Your task to perform on an android device: change the clock display to analog Image 0: 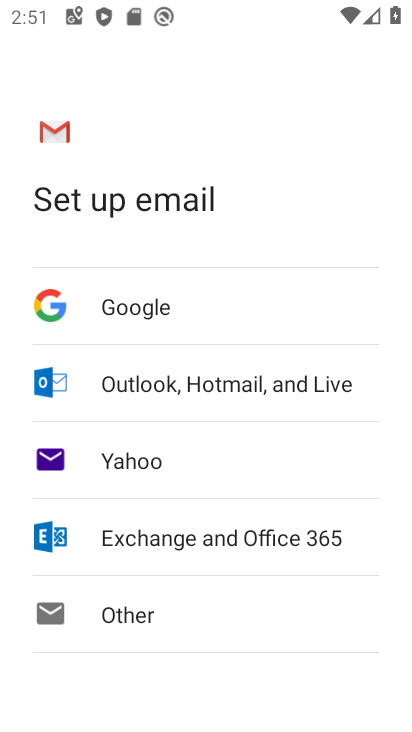
Step 0: press home button
Your task to perform on an android device: change the clock display to analog Image 1: 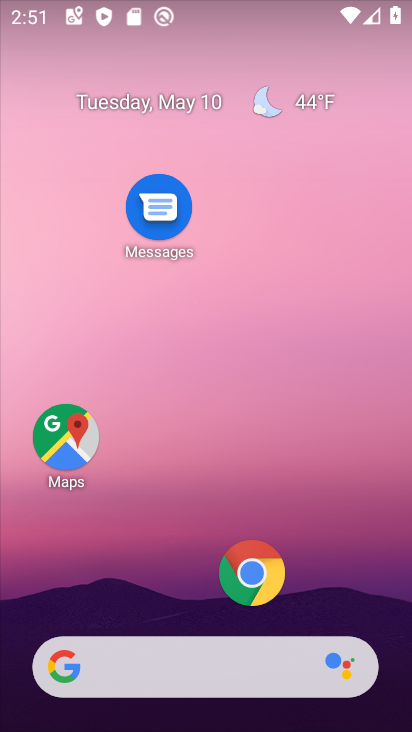
Step 1: drag from (177, 609) to (209, 240)
Your task to perform on an android device: change the clock display to analog Image 2: 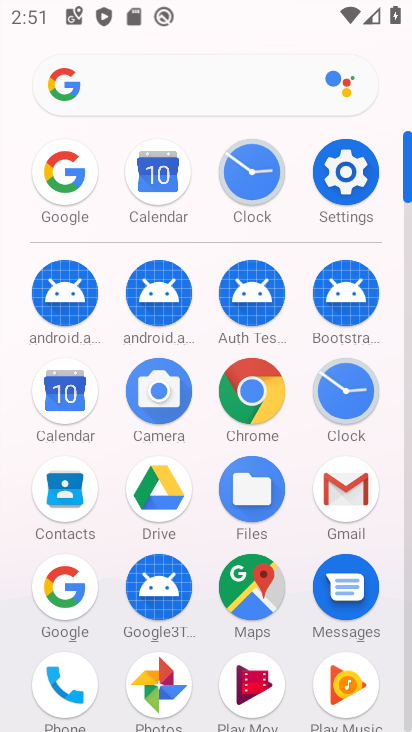
Step 2: click (254, 185)
Your task to perform on an android device: change the clock display to analog Image 3: 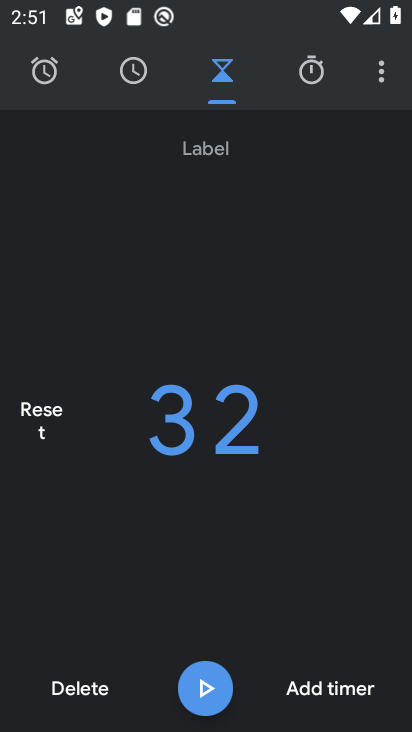
Step 3: click (372, 68)
Your task to perform on an android device: change the clock display to analog Image 4: 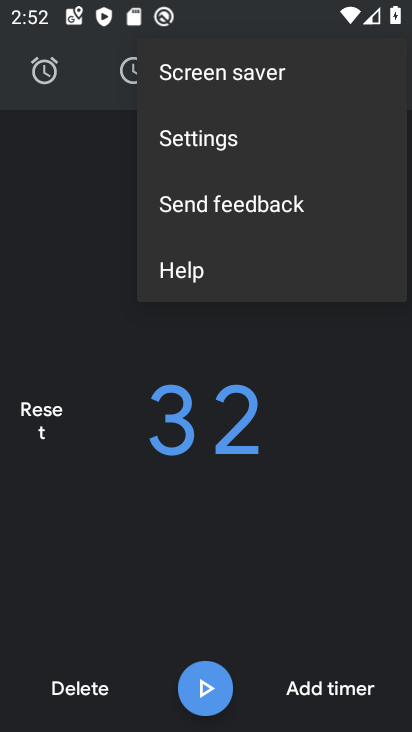
Step 4: click (237, 135)
Your task to perform on an android device: change the clock display to analog Image 5: 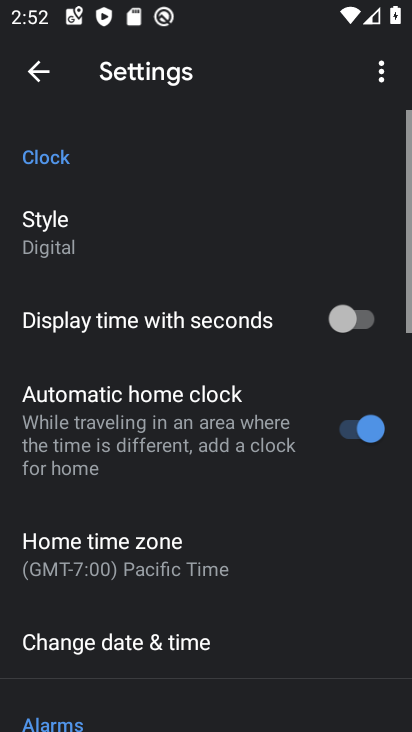
Step 5: click (58, 234)
Your task to perform on an android device: change the clock display to analog Image 6: 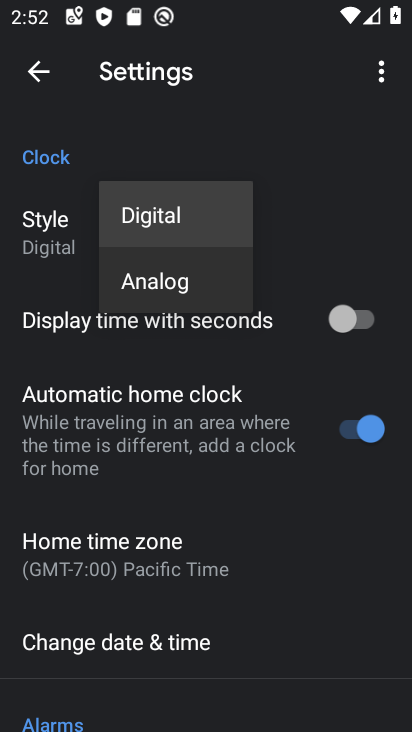
Step 6: click (165, 268)
Your task to perform on an android device: change the clock display to analog Image 7: 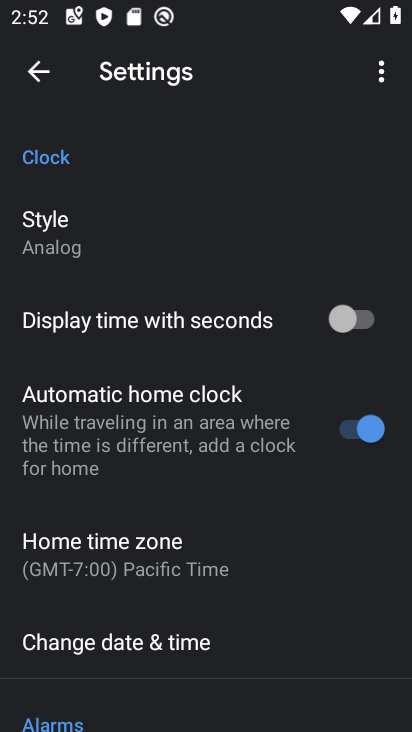
Step 7: task complete